Your task to perform on an android device: What's on my calendar tomorrow? Image 0: 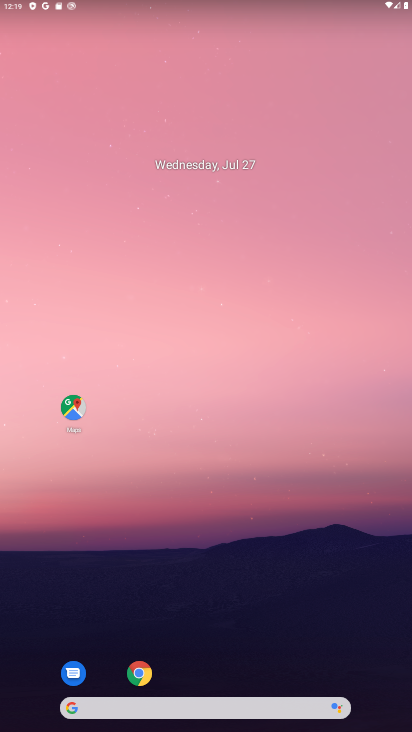
Step 0: drag from (253, 462) to (221, 43)
Your task to perform on an android device: What's on my calendar tomorrow? Image 1: 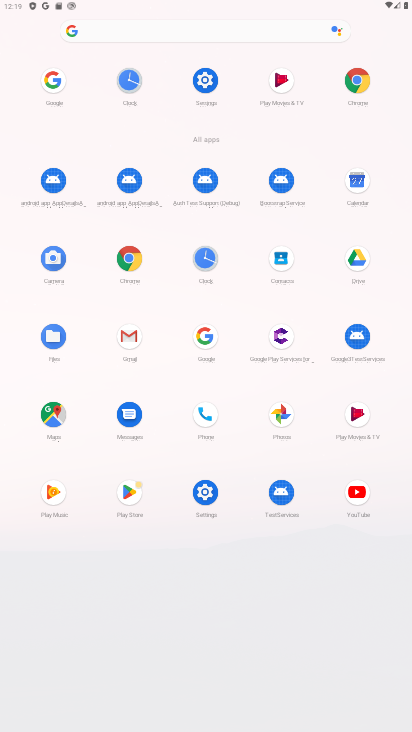
Step 1: click (362, 186)
Your task to perform on an android device: What's on my calendar tomorrow? Image 2: 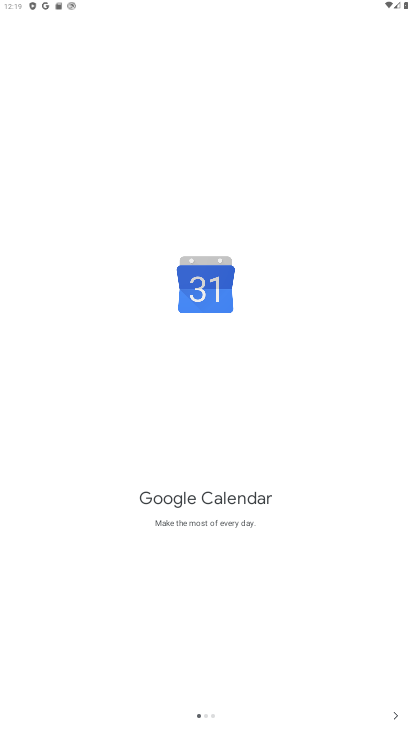
Step 2: click (394, 723)
Your task to perform on an android device: What's on my calendar tomorrow? Image 3: 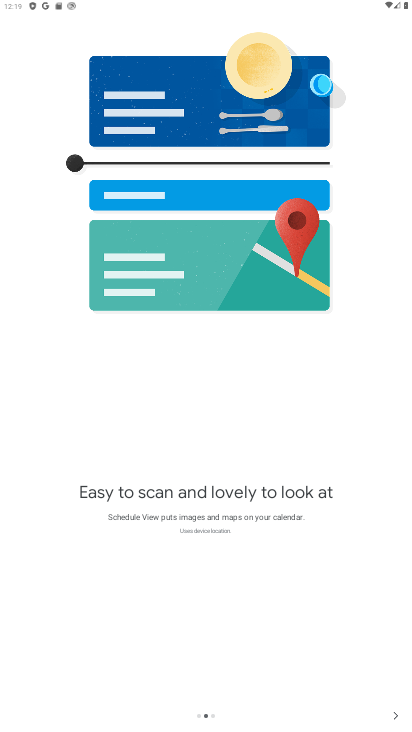
Step 3: click (395, 723)
Your task to perform on an android device: What's on my calendar tomorrow? Image 4: 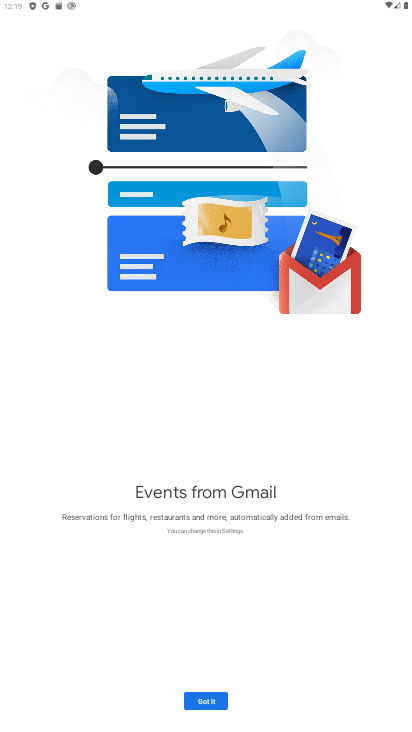
Step 4: click (198, 702)
Your task to perform on an android device: What's on my calendar tomorrow? Image 5: 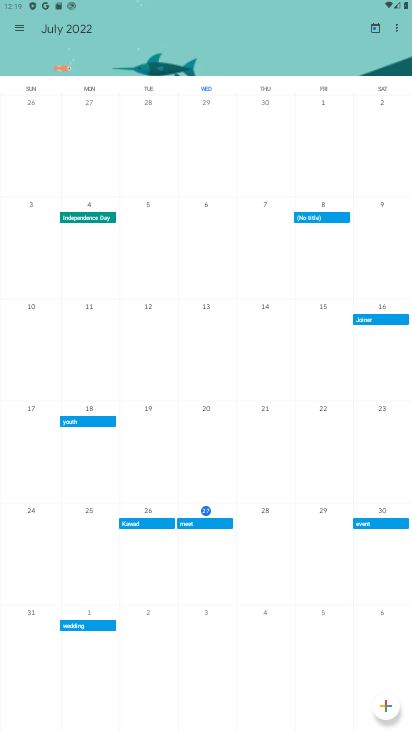
Step 5: click (19, 32)
Your task to perform on an android device: What's on my calendar tomorrow? Image 6: 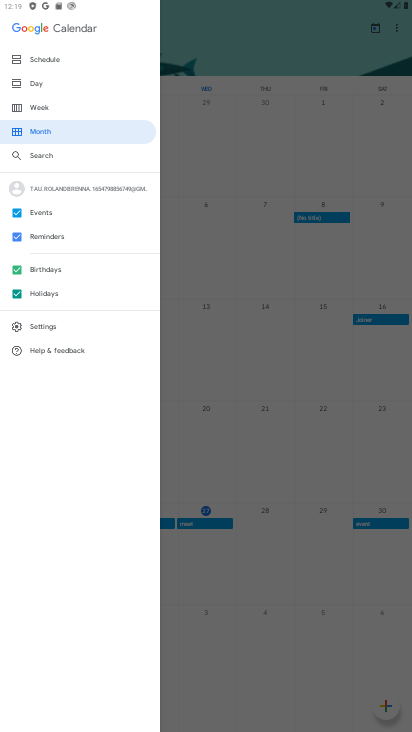
Step 6: click (38, 86)
Your task to perform on an android device: What's on my calendar tomorrow? Image 7: 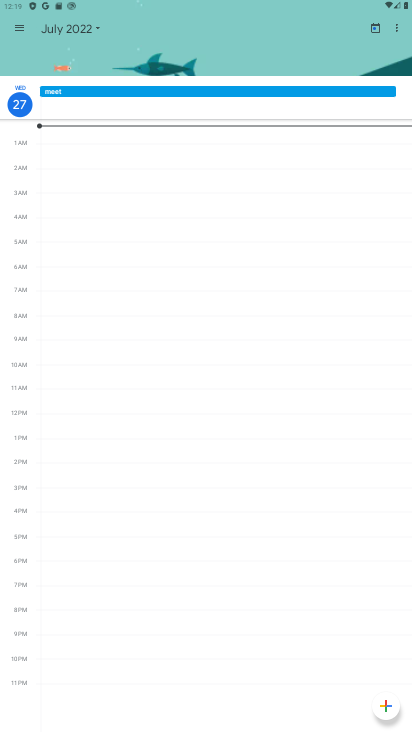
Step 7: drag from (107, 248) to (122, 415)
Your task to perform on an android device: What's on my calendar tomorrow? Image 8: 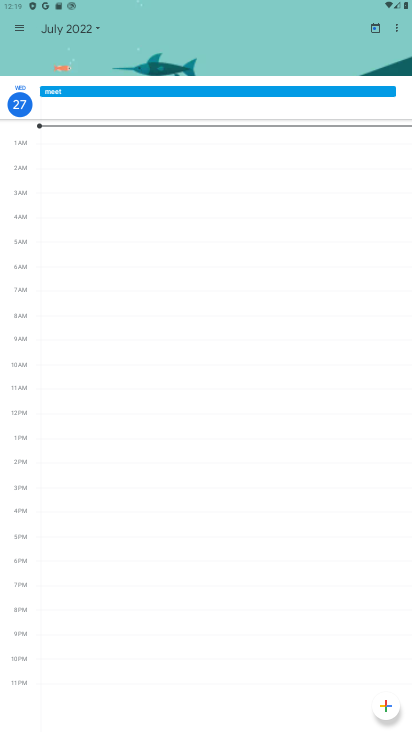
Step 8: drag from (122, 415) to (129, 177)
Your task to perform on an android device: What's on my calendar tomorrow? Image 9: 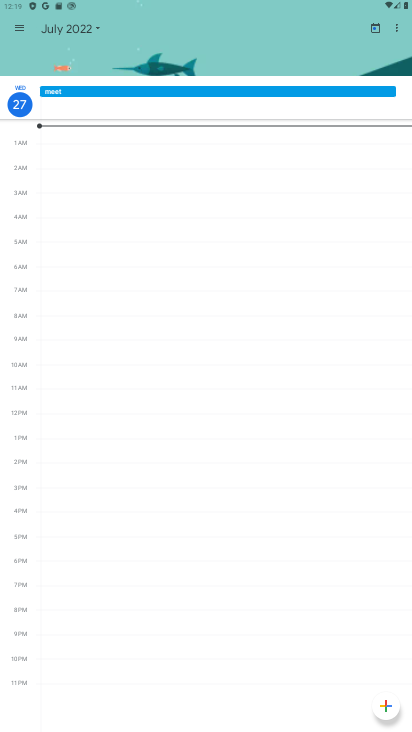
Step 9: click (123, 88)
Your task to perform on an android device: What's on my calendar tomorrow? Image 10: 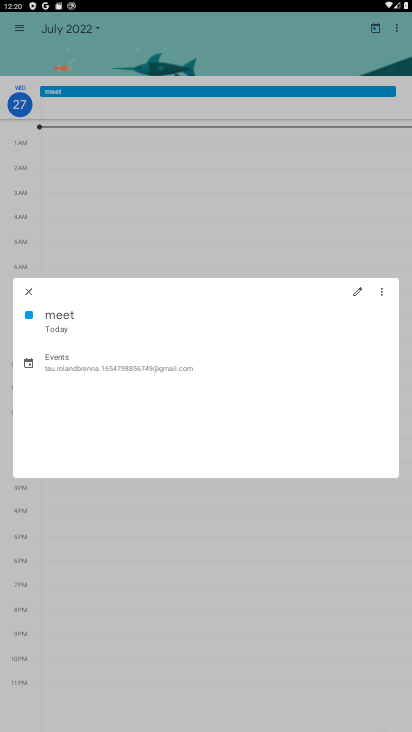
Step 10: task complete